Your task to perform on an android device: open app "McDonald's" (install if not already installed), go to login, and select forgot password Image 0: 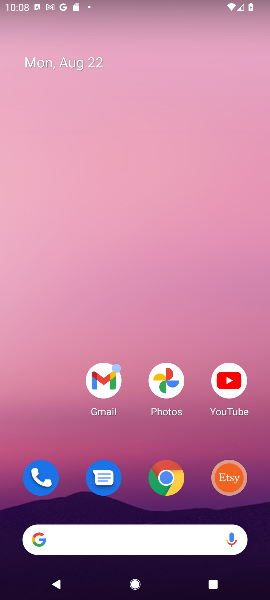
Step 0: drag from (158, 515) to (150, 122)
Your task to perform on an android device: open app "McDonald's" (install if not already installed), go to login, and select forgot password Image 1: 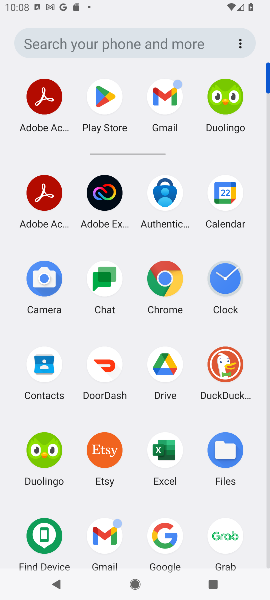
Step 1: drag from (194, 520) to (179, 237)
Your task to perform on an android device: open app "McDonald's" (install if not already installed), go to login, and select forgot password Image 2: 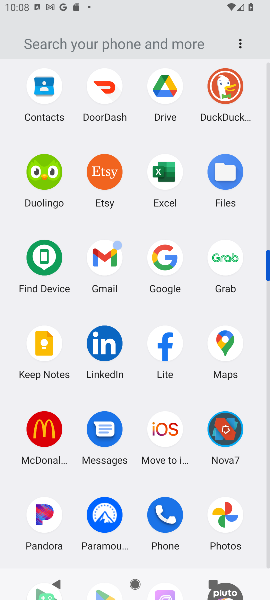
Step 2: drag from (135, 520) to (134, 216)
Your task to perform on an android device: open app "McDonald's" (install if not already installed), go to login, and select forgot password Image 3: 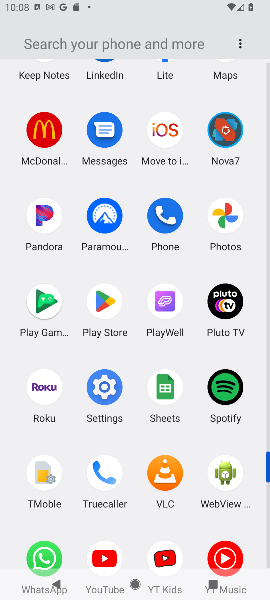
Step 3: click (36, 159)
Your task to perform on an android device: open app "McDonald's" (install if not already installed), go to login, and select forgot password Image 4: 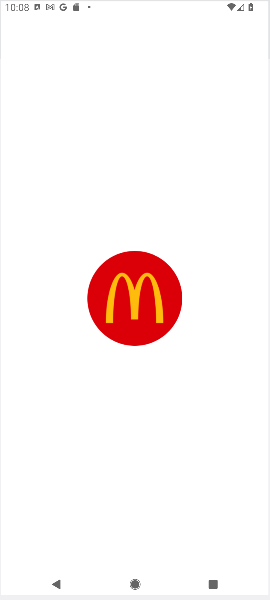
Step 4: task complete